Your task to perform on an android device: turn notification dots on Image 0: 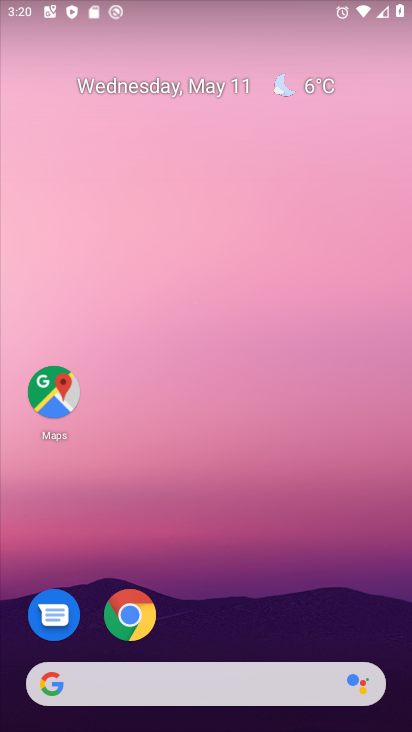
Step 0: drag from (294, 597) to (283, 181)
Your task to perform on an android device: turn notification dots on Image 1: 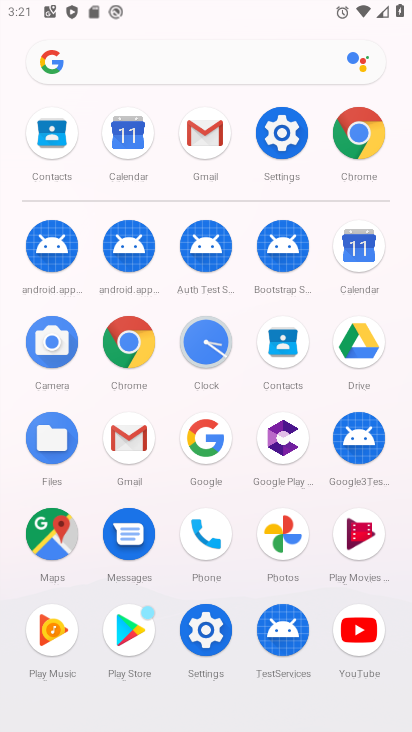
Step 1: click (281, 145)
Your task to perform on an android device: turn notification dots on Image 2: 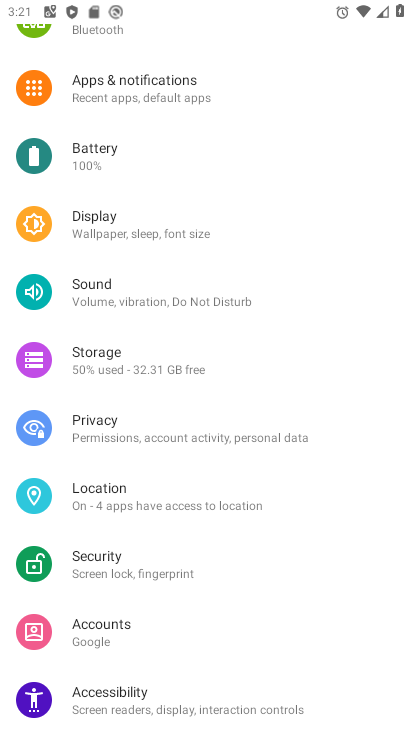
Step 2: click (139, 80)
Your task to perform on an android device: turn notification dots on Image 3: 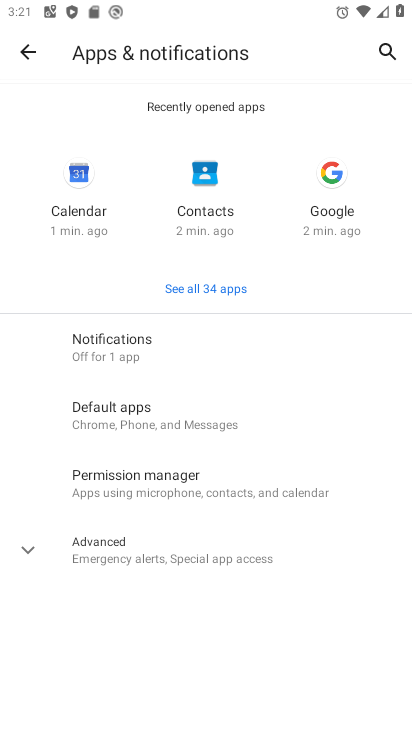
Step 3: click (152, 350)
Your task to perform on an android device: turn notification dots on Image 4: 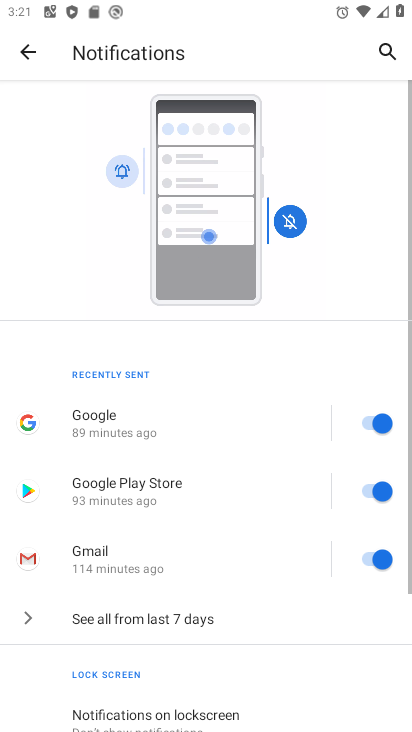
Step 4: drag from (218, 620) to (218, 70)
Your task to perform on an android device: turn notification dots on Image 5: 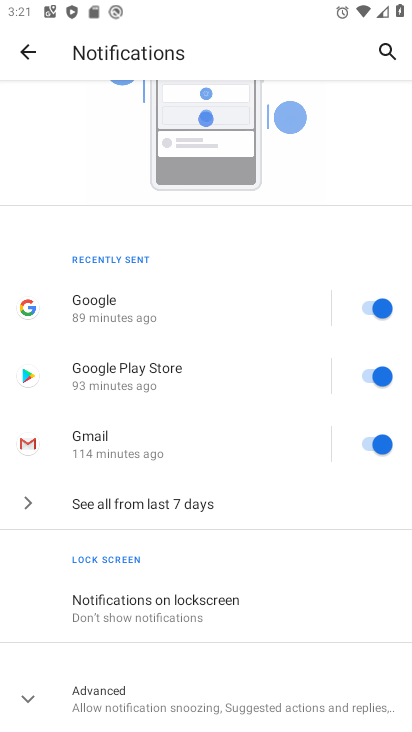
Step 5: drag from (180, 645) to (258, 346)
Your task to perform on an android device: turn notification dots on Image 6: 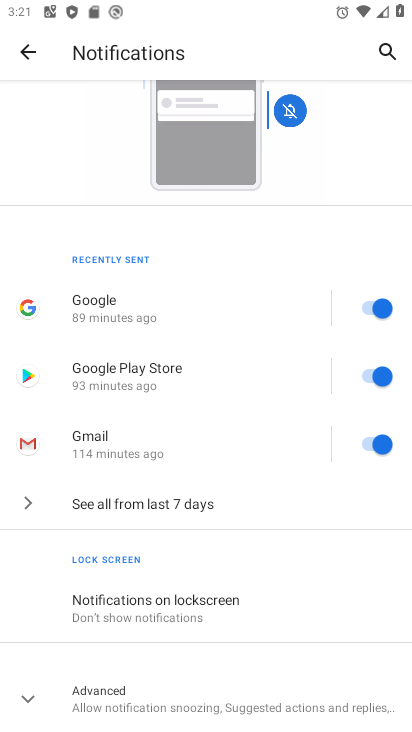
Step 6: click (164, 681)
Your task to perform on an android device: turn notification dots on Image 7: 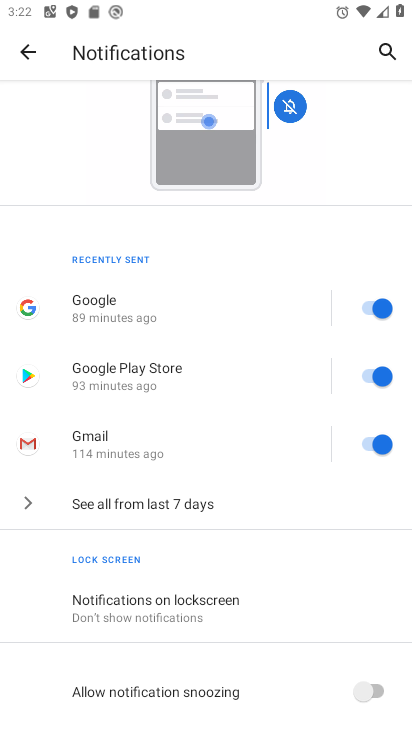
Step 7: task complete